Your task to perform on an android device: Open calendar and show me the fourth week of next month Image 0: 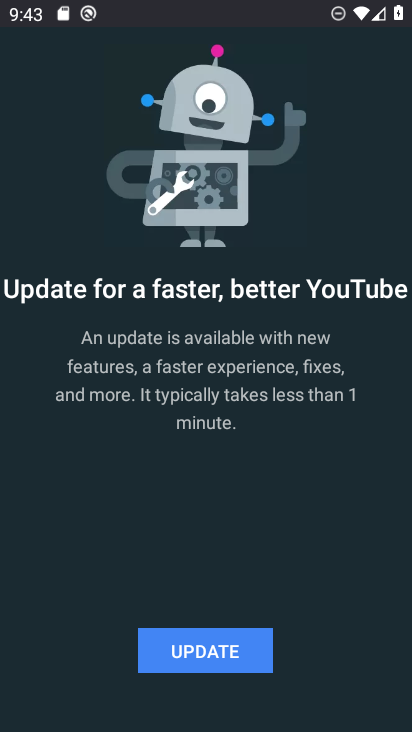
Step 0: press home button
Your task to perform on an android device: Open calendar and show me the fourth week of next month Image 1: 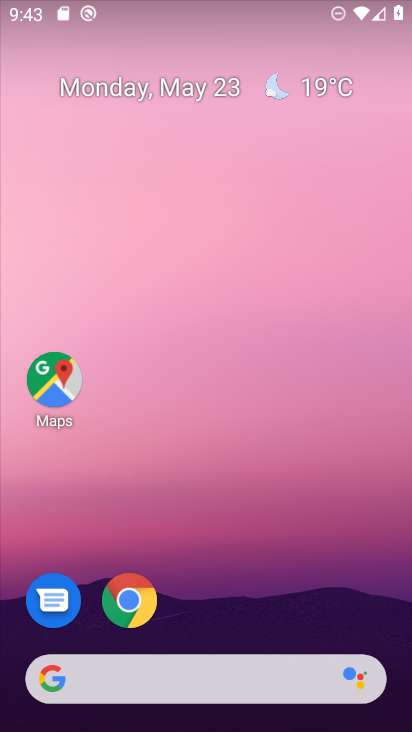
Step 1: drag from (51, 504) to (225, 100)
Your task to perform on an android device: Open calendar and show me the fourth week of next month Image 2: 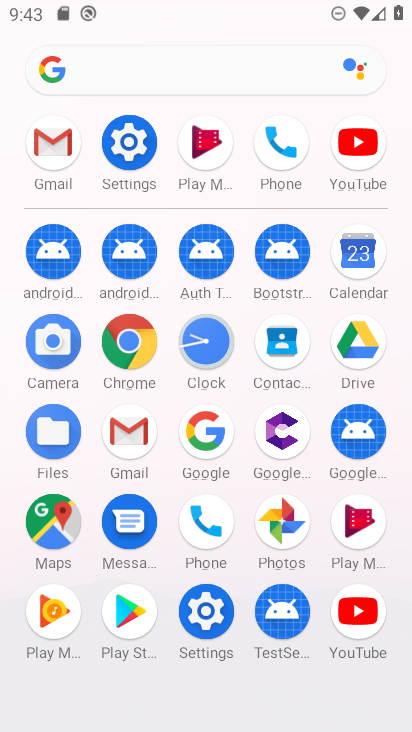
Step 2: click (367, 249)
Your task to perform on an android device: Open calendar and show me the fourth week of next month Image 3: 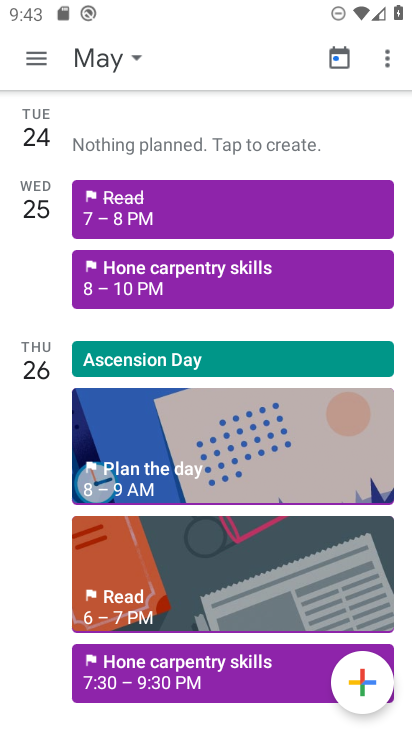
Step 3: click (127, 50)
Your task to perform on an android device: Open calendar and show me the fourth week of next month Image 4: 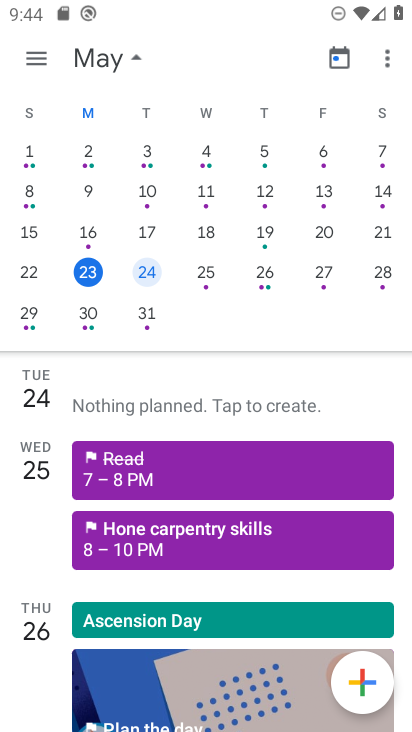
Step 4: task complete